Your task to perform on an android device: turn on wifi Image 0: 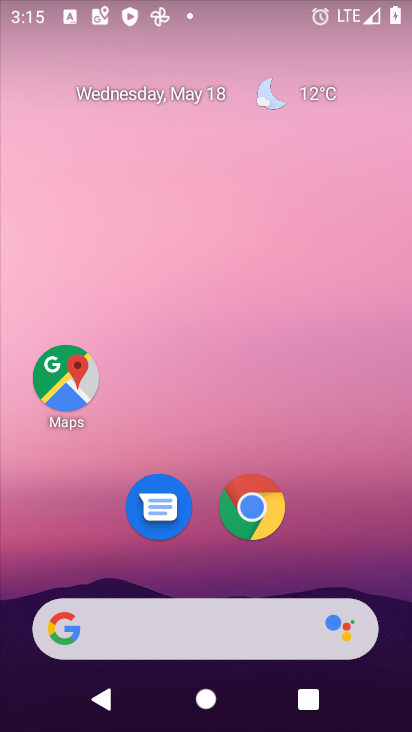
Step 0: drag from (395, 620) to (273, 133)
Your task to perform on an android device: turn on wifi Image 1: 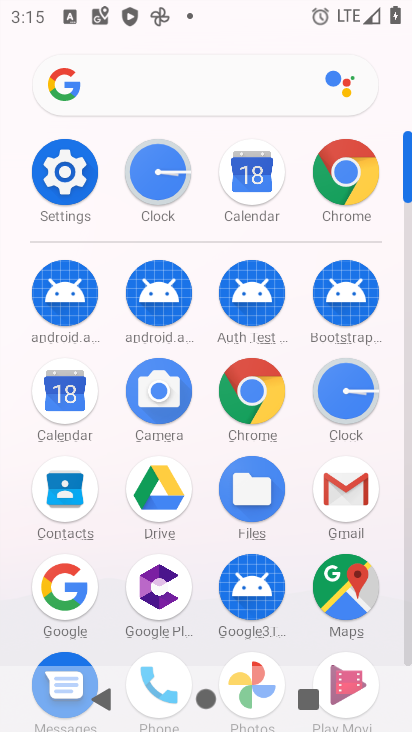
Step 1: click (405, 649)
Your task to perform on an android device: turn on wifi Image 2: 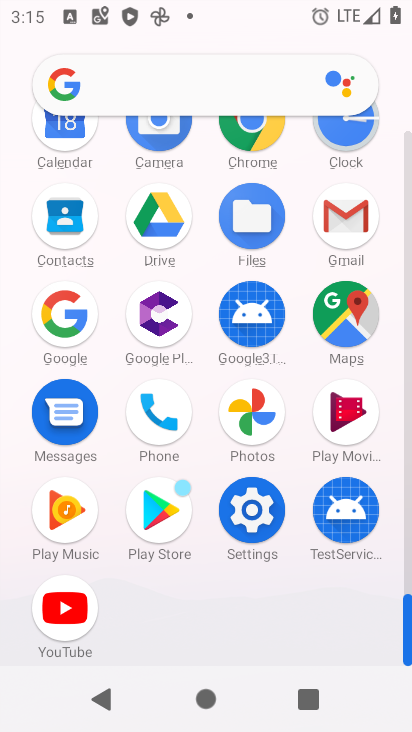
Step 2: click (254, 507)
Your task to perform on an android device: turn on wifi Image 3: 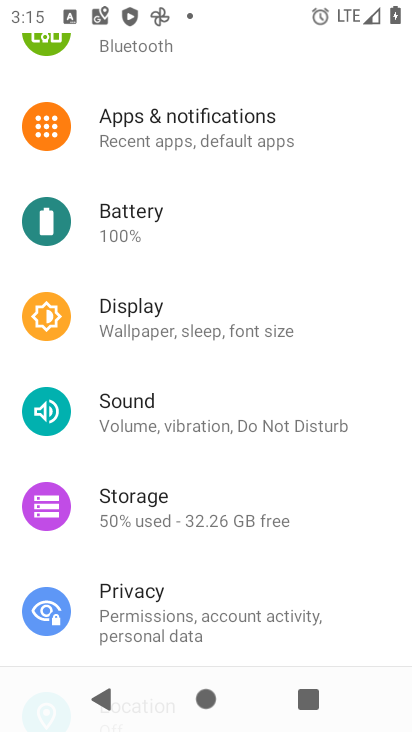
Step 3: drag from (338, 133) to (324, 475)
Your task to perform on an android device: turn on wifi Image 4: 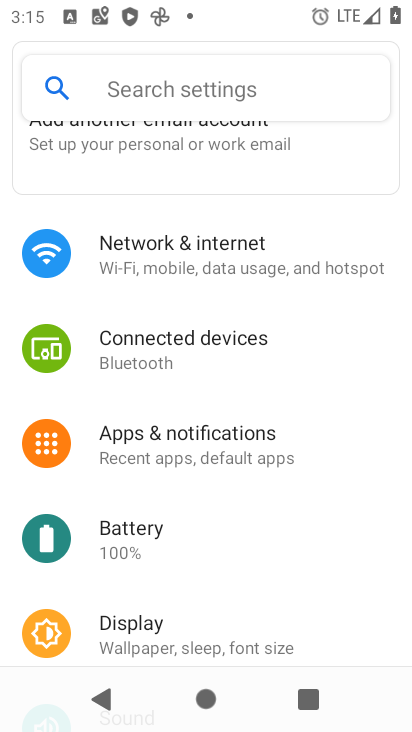
Step 4: click (139, 239)
Your task to perform on an android device: turn on wifi Image 5: 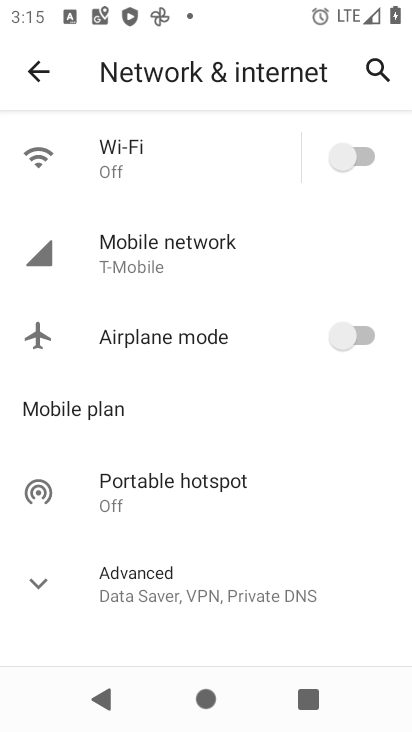
Step 5: click (370, 156)
Your task to perform on an android device: turn on wifi Image 6: 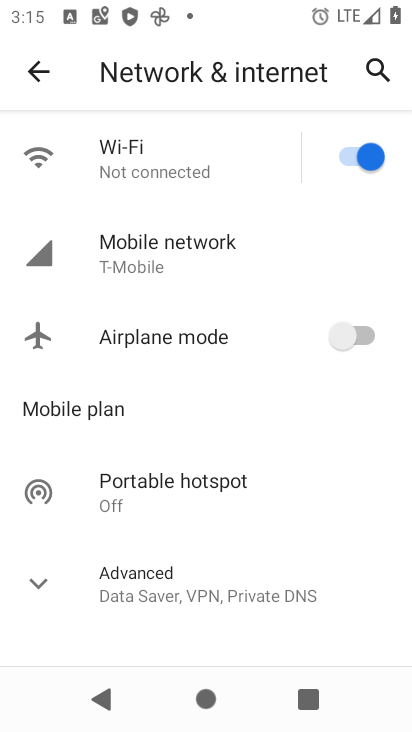
Step 6: task complete